Your task to perform on an android device: Open Google Chrome and click the shortcut for Amazon.com Image 0: 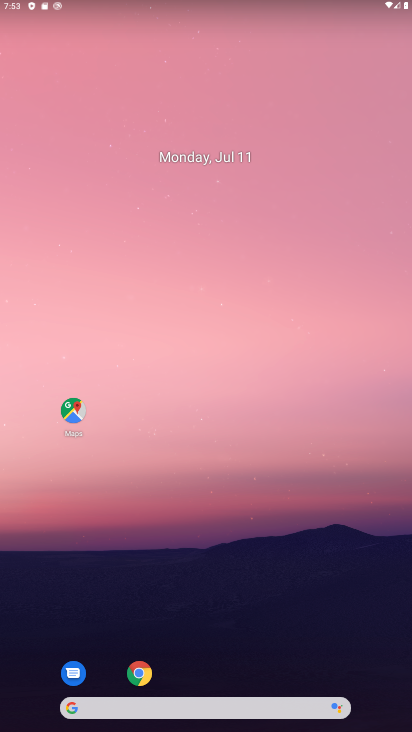
Step 0: press home button
Your task to perform on an android device: Open Google Chrome and click the shortcut for Amazon.com Image 1: 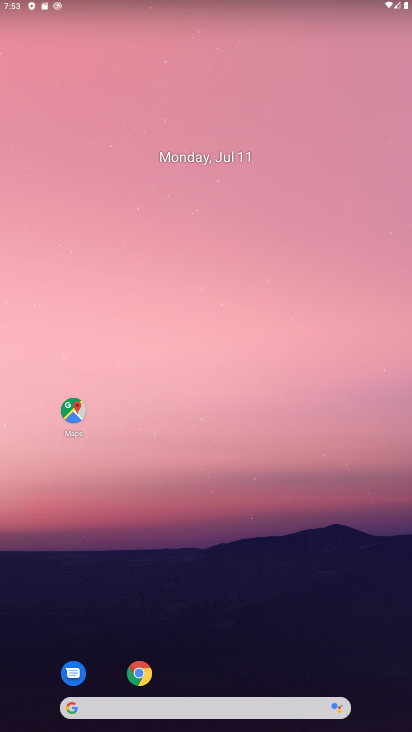
Step 1: click (138, 665)
Your task to perform on an android device: Open Google Chrome and click the shortcut for Amazon.com Image 2: 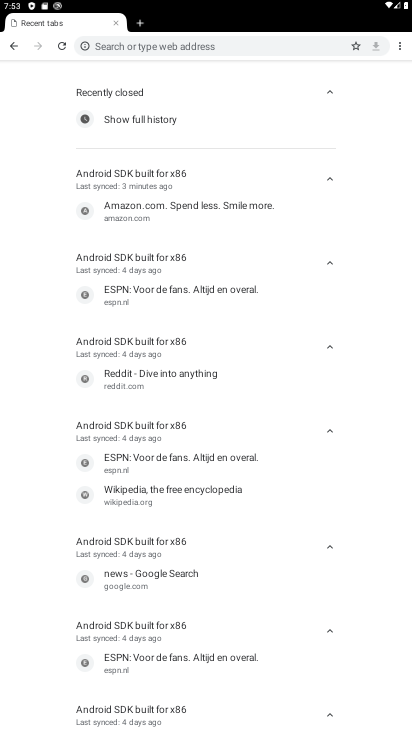
Step 2: click (138, 20)
Your task to perform on an android device: Open Google Chrome and click the shortcut for Amazon.com Image 3: 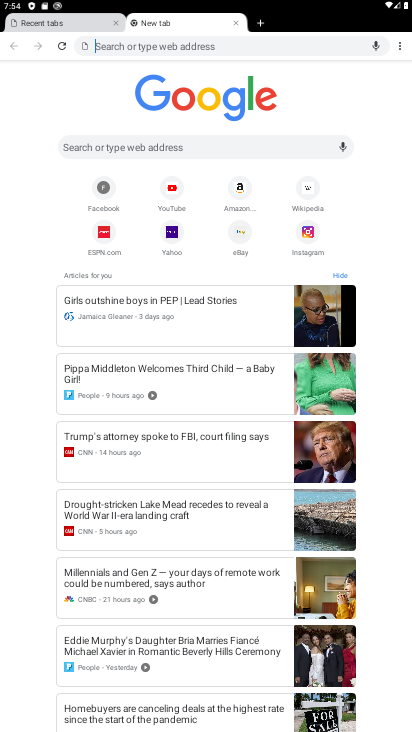
Step 3: click (148, 144)
Your task to perform on an android device: Open Google Chrome and click the shortcut for Amazon.com Image 4: 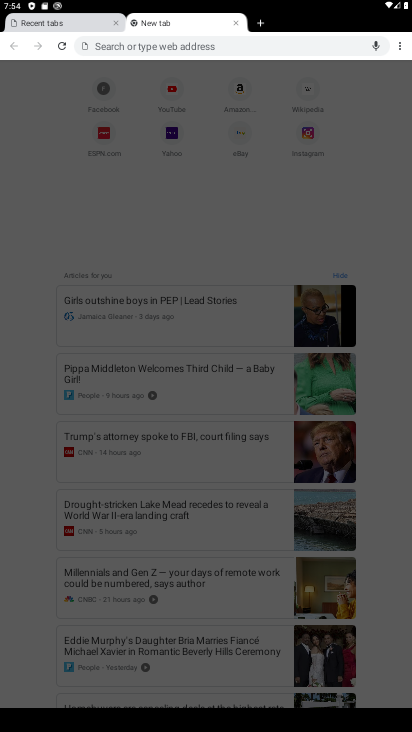
Step 4: type "amazon"
Your task to perform on an android device: Open Google Chrome and click the shortcut for Amazon.com Image 5: 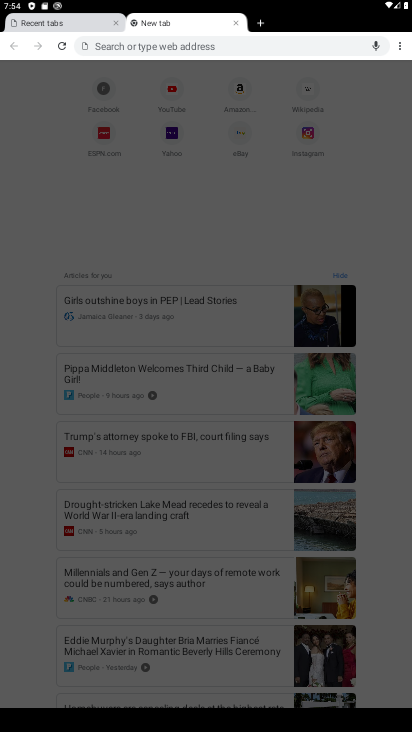
Step 5: click (143, 270)
Your task to perform on an android device: Open Google Chrome and click the shortcut for Amazon.com Image 6: 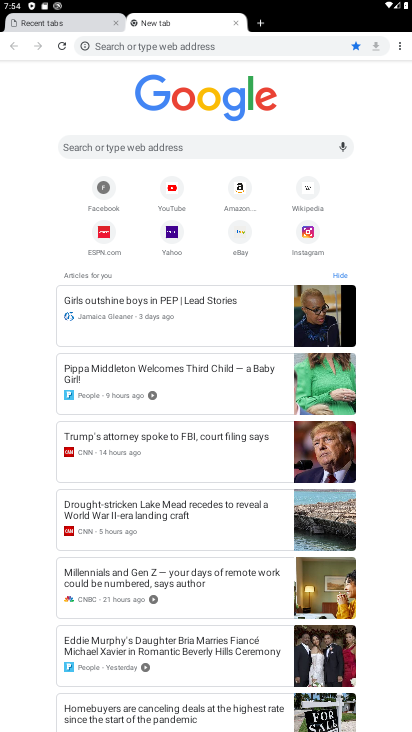
Step 6: click (242, 183)
Your task to perform on an android device: Open Google Chrome and click the shortcut for Amazon.com Image 7: 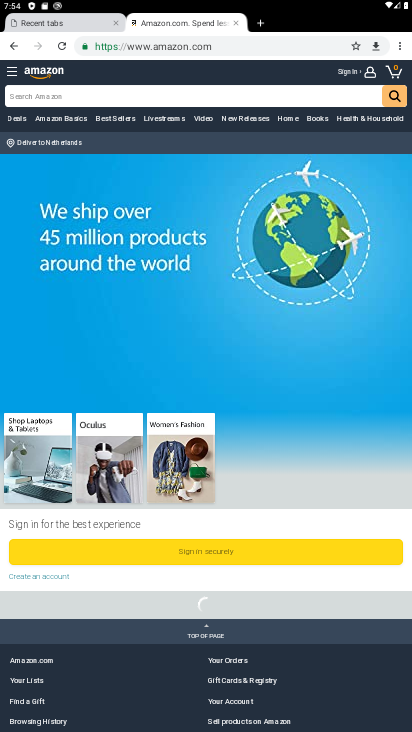
Step 7: task complete